Your task to perform on an android device: What's the news this month? Image 0: 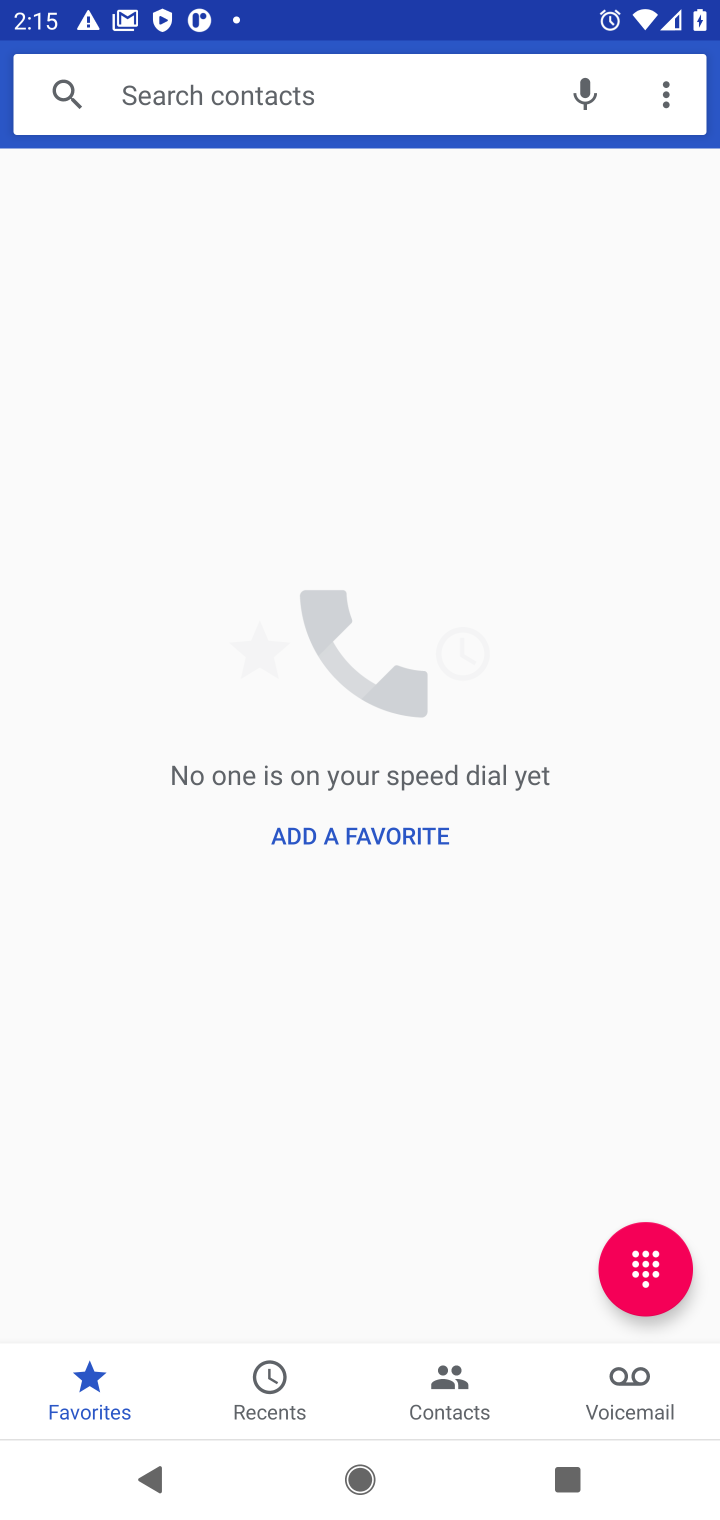
Step 0: press home button
Your task to perform on an android device: What's the news this month? Image 1: 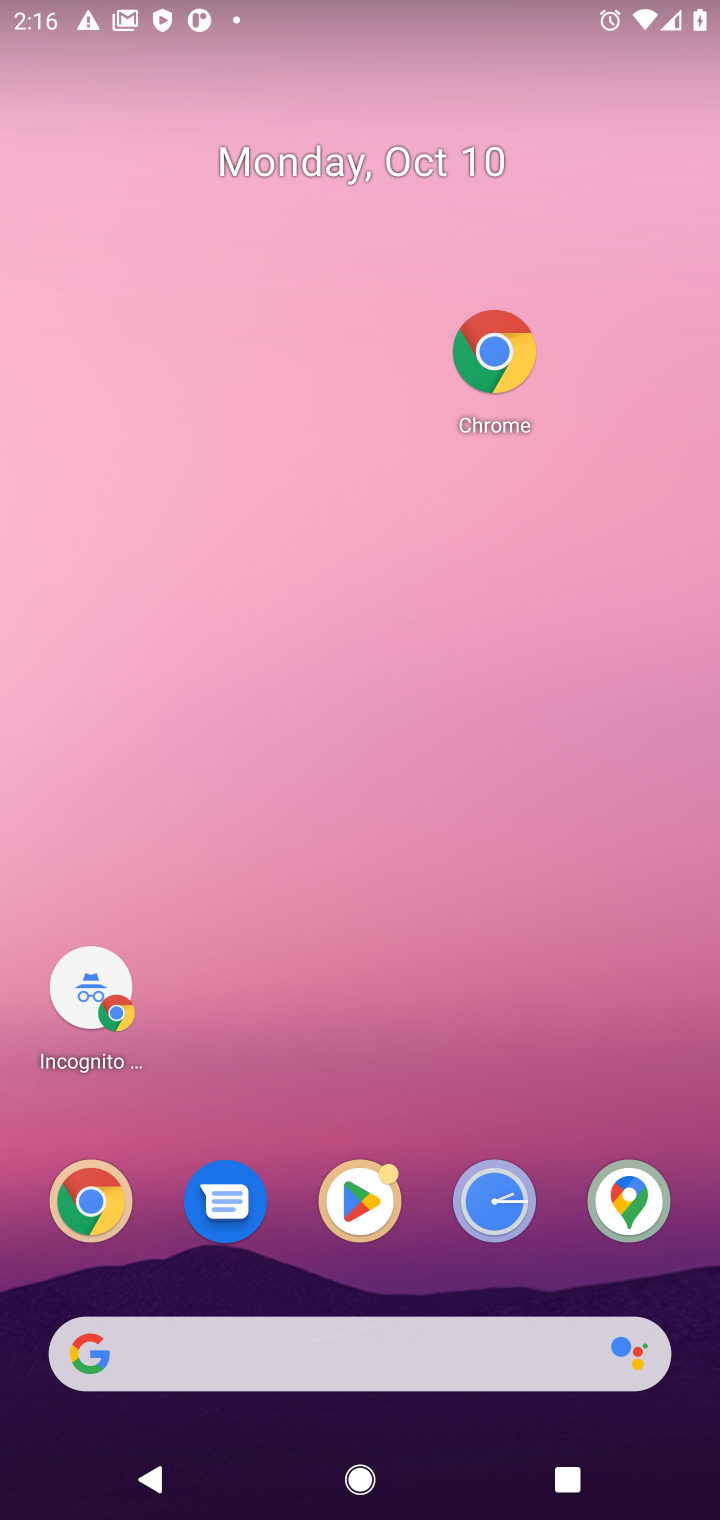
Step 1: click (315, 1355)
Your task to perform on an android device: What's the news this month? Image 2: 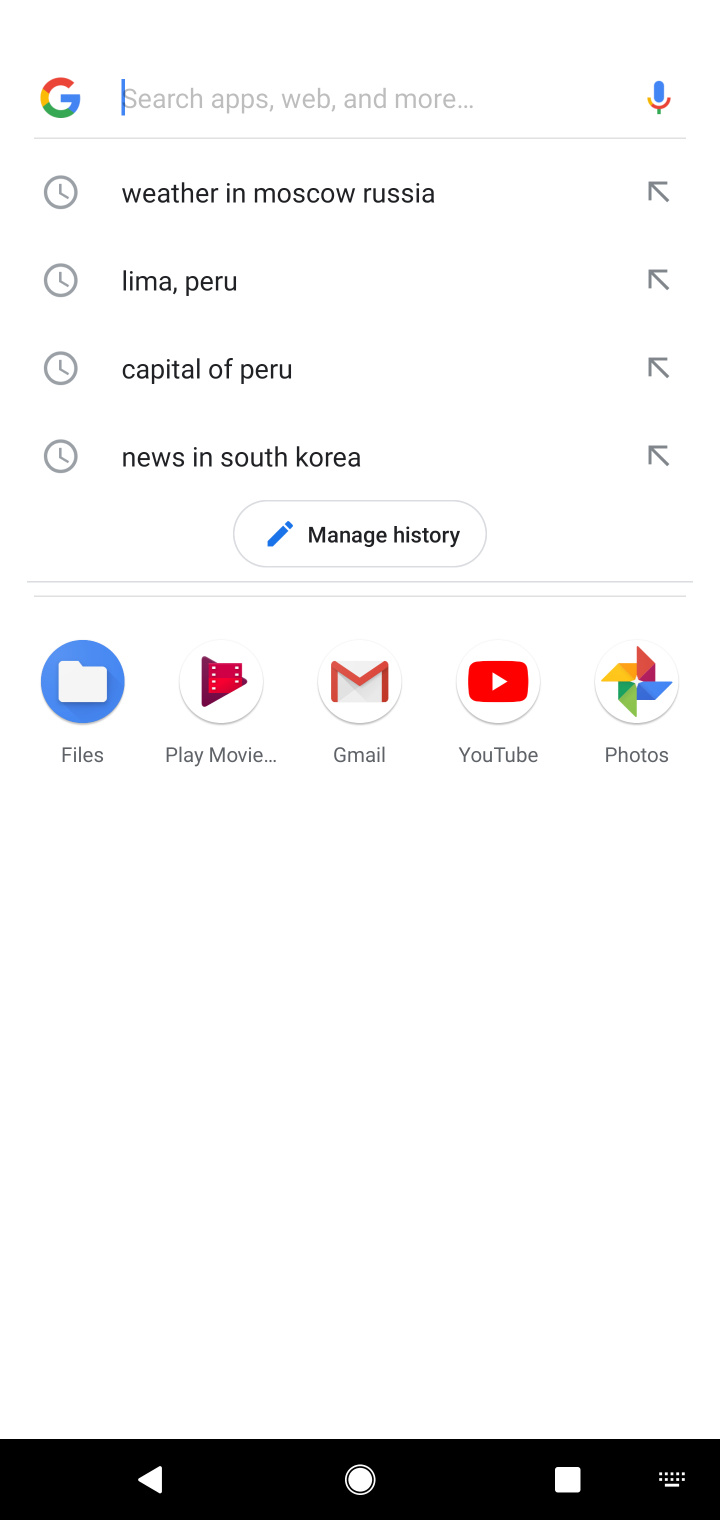
Step 2: click (204, 115)
Your task to perform on an android device: What's the news this month? Image 3: 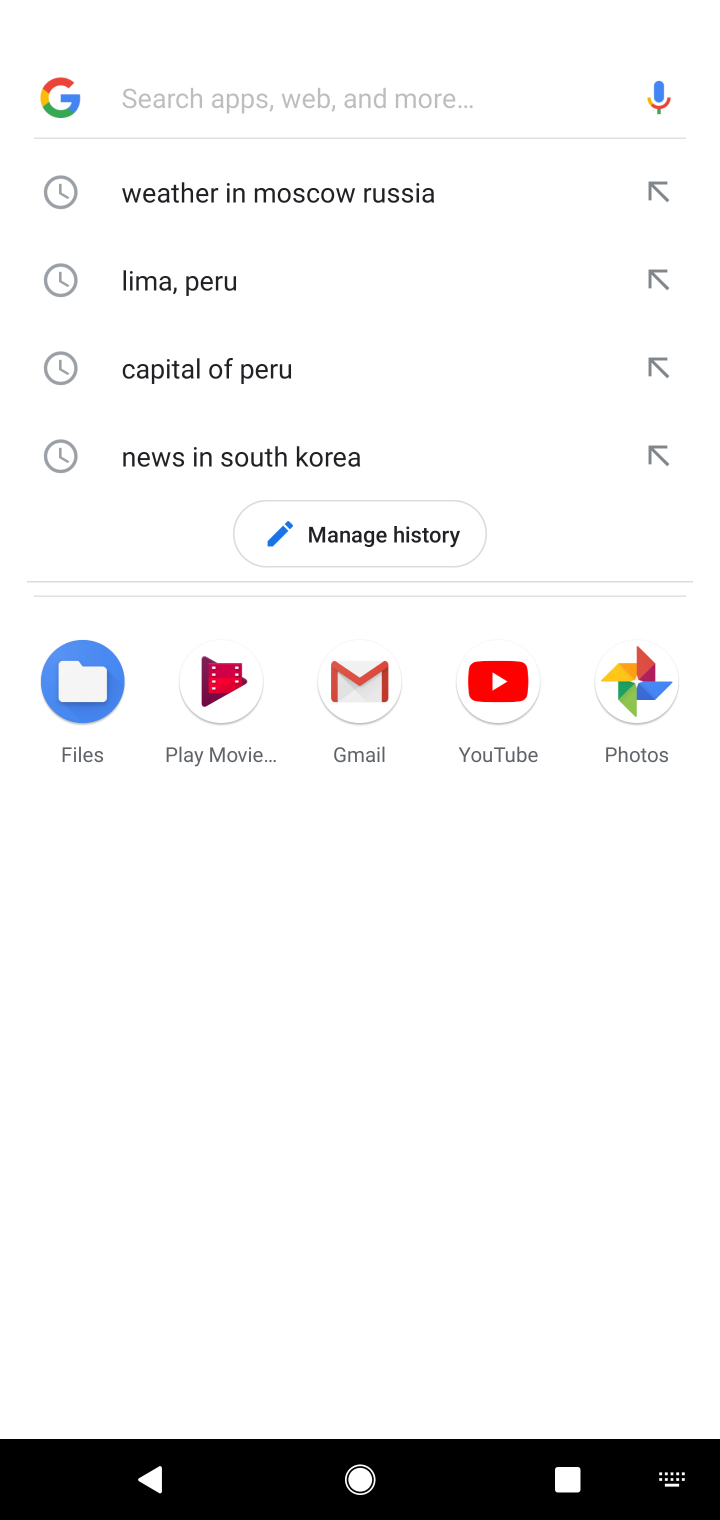
Step 3: type "news"
Your task to perform on an android device: What's the news this month? Image 4: 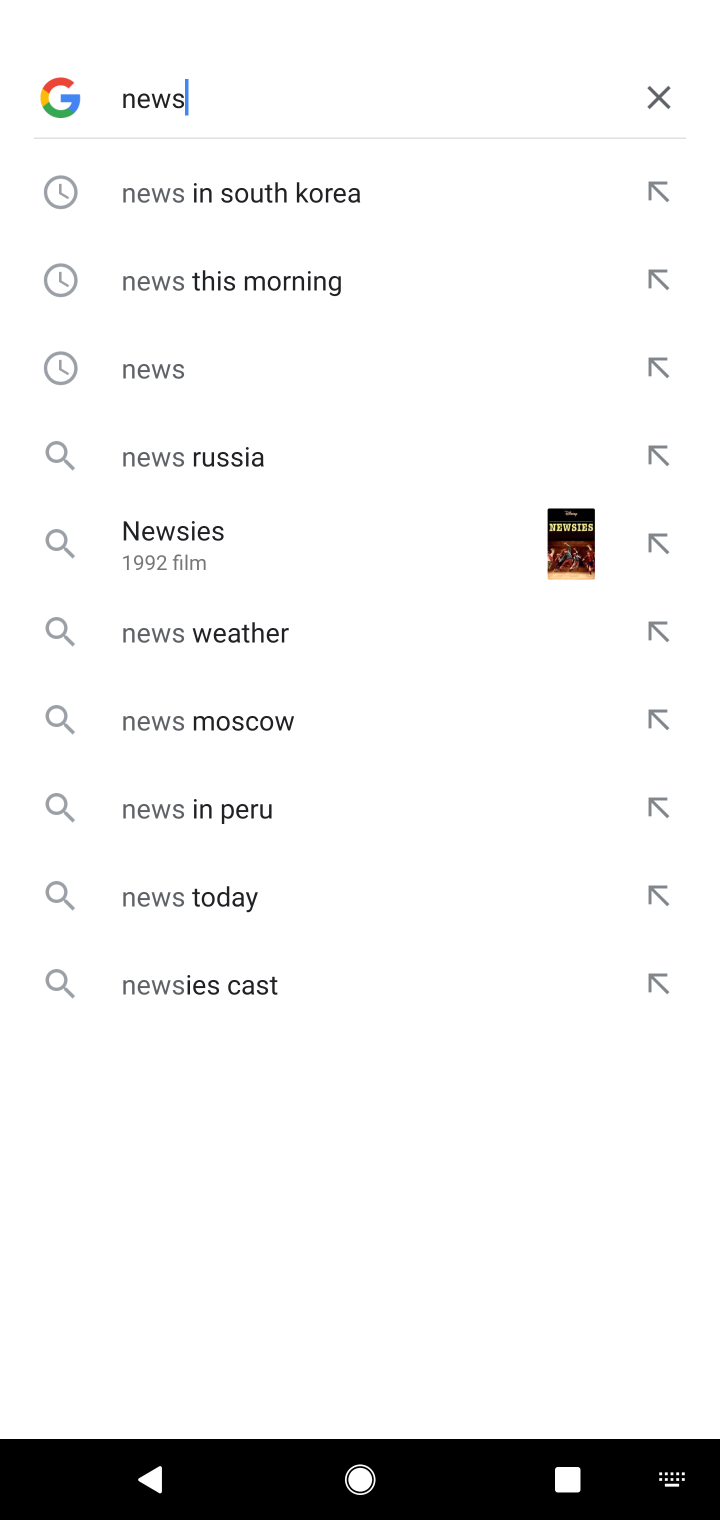
Step 4: click (135, 366)
Your task to perform on an android device: What's the news this month? Image 5: 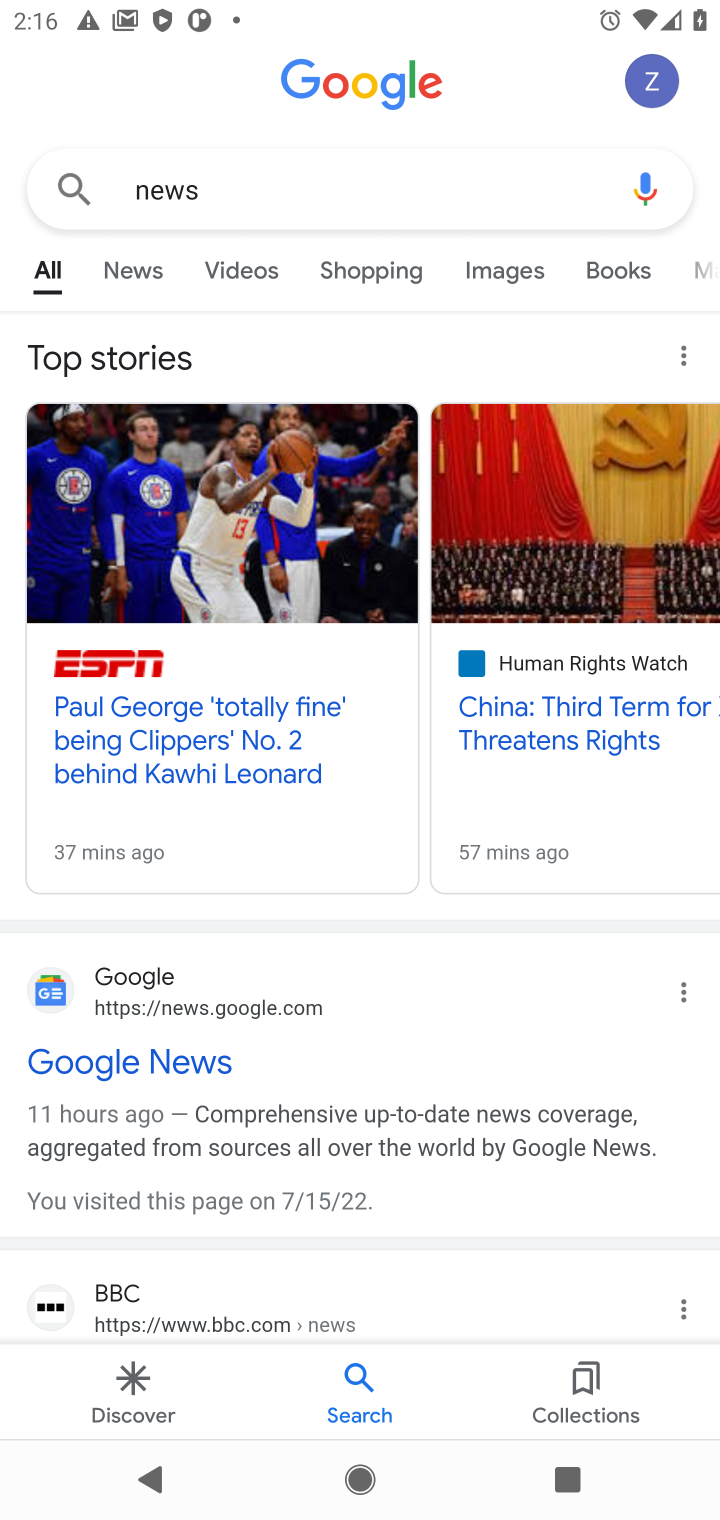
Step 5: click (131, 271)
Your task to perform on an android device: What's the news this month? Image 6: 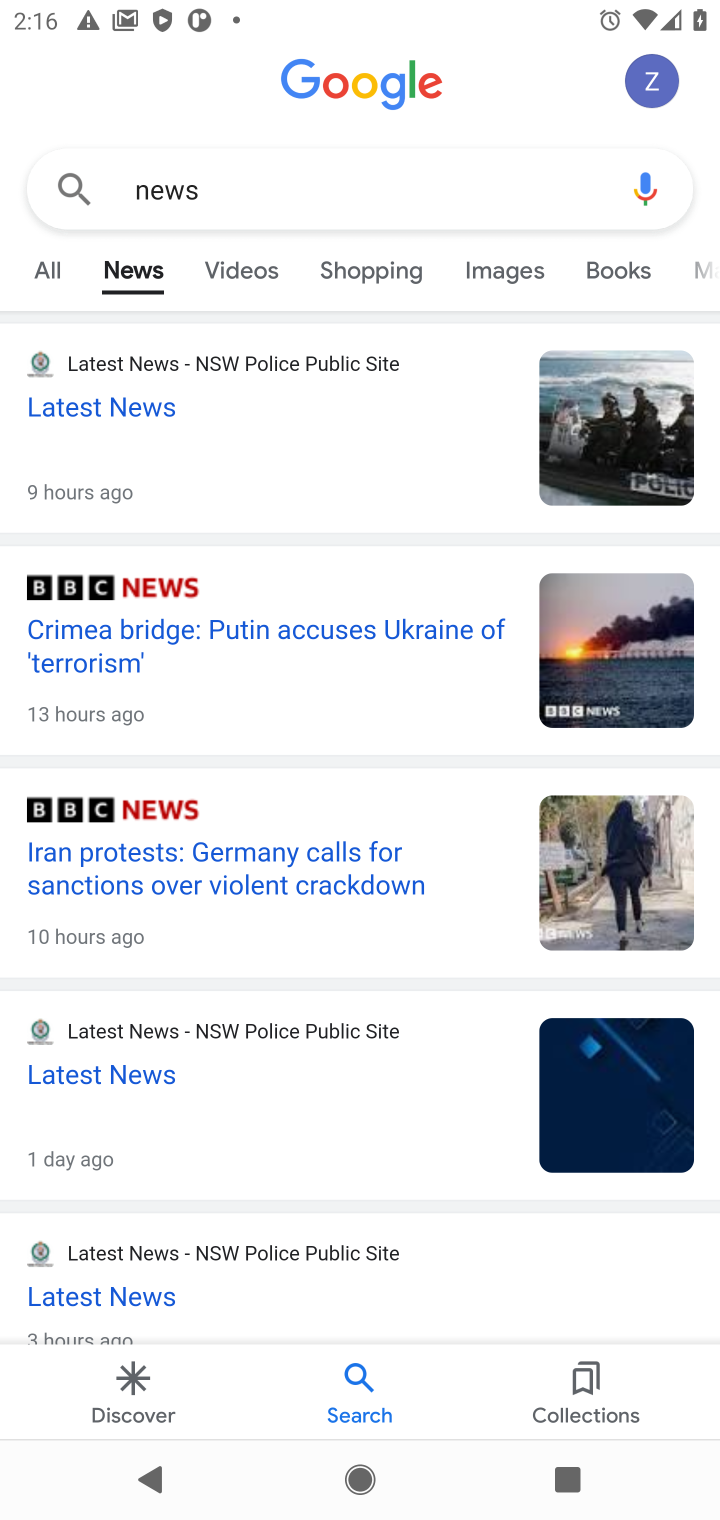
Step 6: click (145, 645)
Your task to perform on an android device: What's the news this month? Image 7: 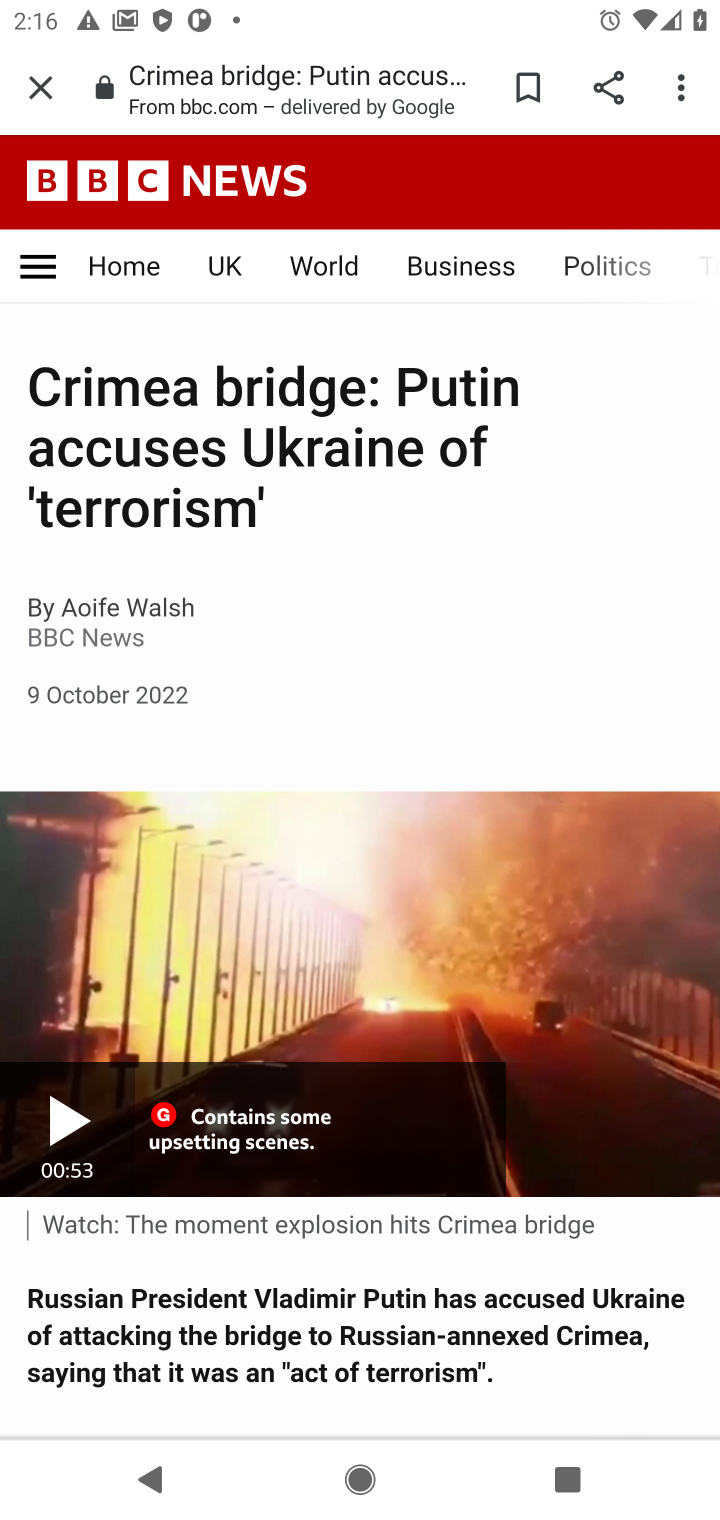
Step 7: task complete